Your task to perform on an android device: empty trash in google photos Image 0: 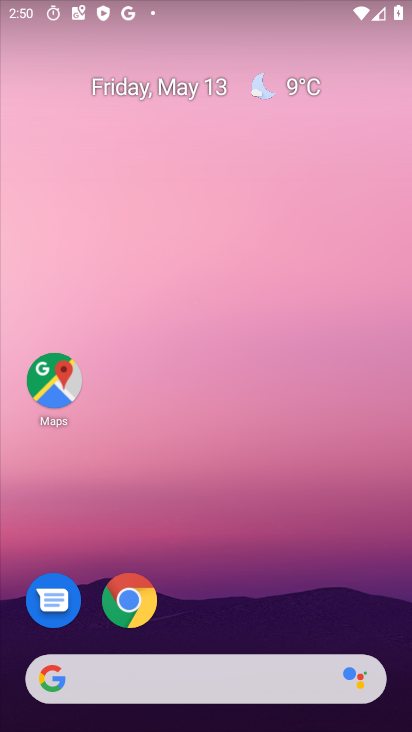
Step 0: drag from (189, 654) to (388, 103)
Your task to perform on an android device: empty trash in google photos Image 1: 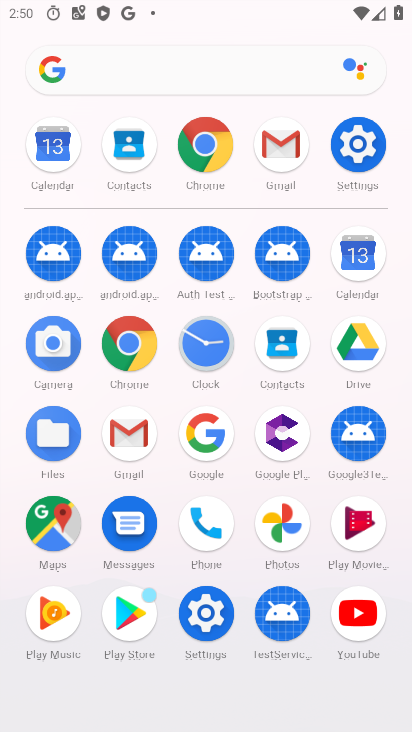
Step 1: click (288, 519)
Your task to perform on an android device: empty trash in google photos Image 2: 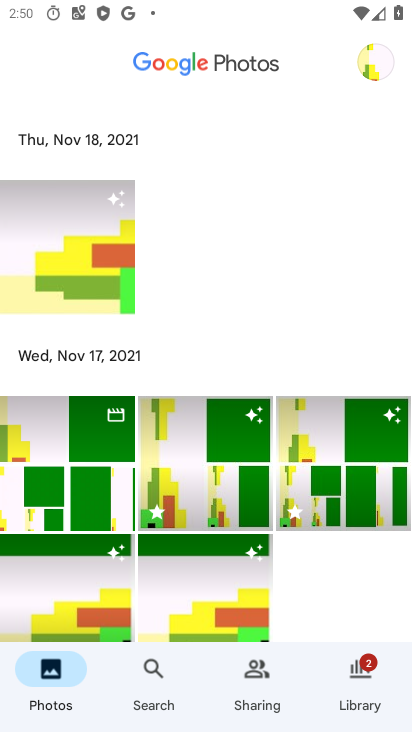
Step 2: click (363, 676)
Your task to perform on an android device: empty trash in google photos Image 3: 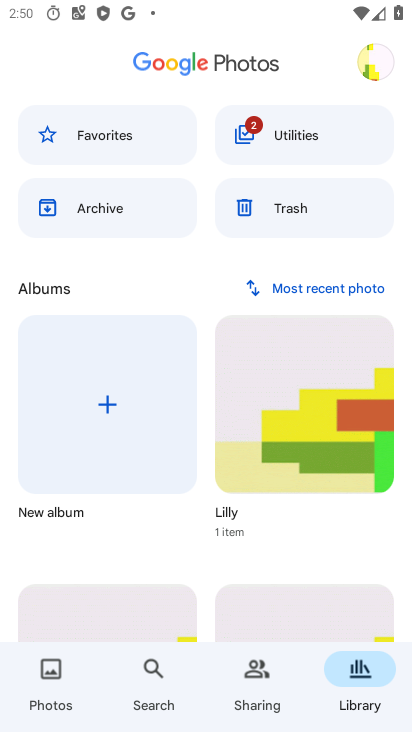
Step 3: click (316, 200)
Your task to perform on an android device: empty trash in google photos Image 4: 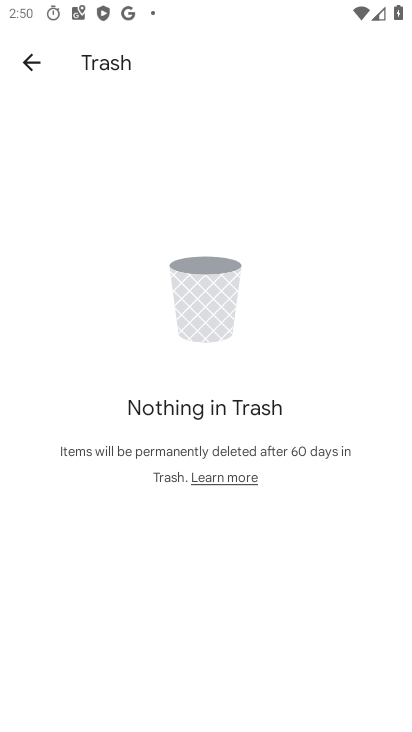
Step 4: task complete